Your task to perform on an android device: Go to ESPN.com Image 0: 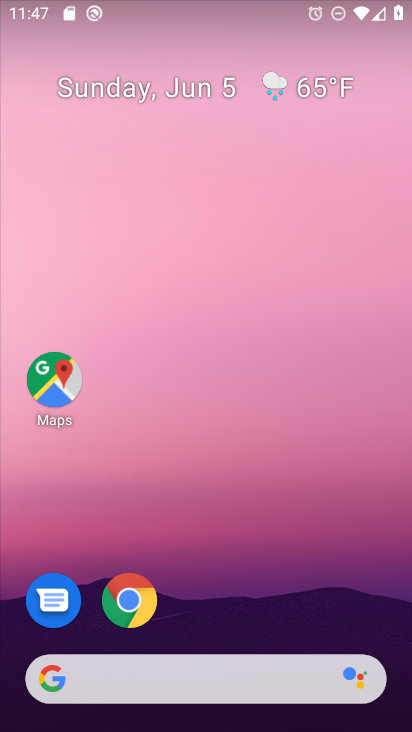
Step 0: drag from (347, 607) to (225, 16)
Your task to perform on an android device: Go to ESPN.com Image 1: 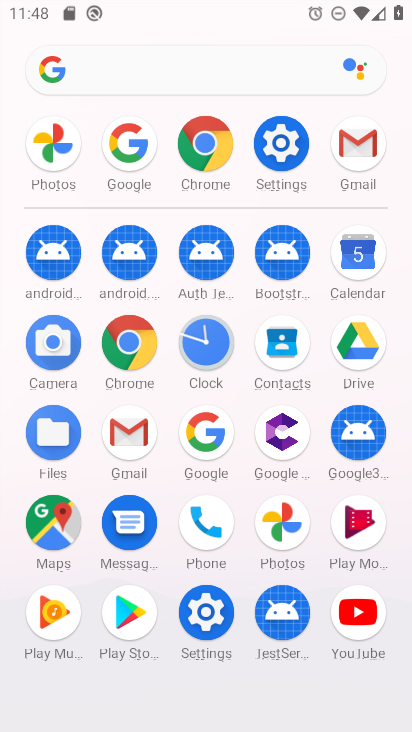
Step 1: click (202, 419)
Your task to perform on an android device: Go to ESPN.com Image 2: 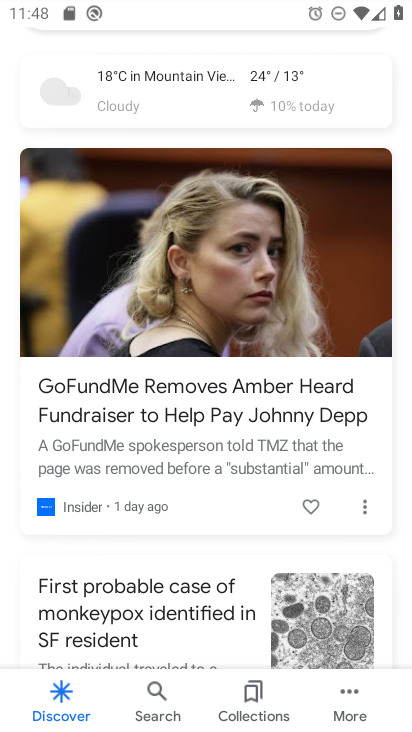
Step 2: drag from (158, 93) to (153, 630)
Your task to perform on an android device: Go to ESPN.com Image 3: 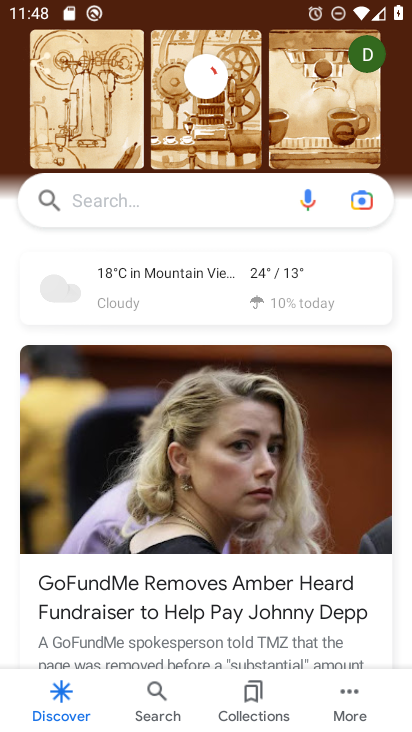
Step 3: click (161, 183)
Your task to perform on an android device: Go to ESPN.com Image 4: 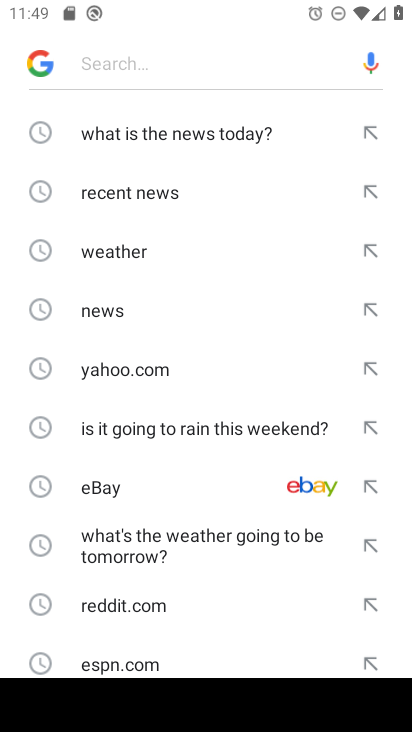
Step 4: click (152, 657)
Your task to perform on an android device: Go to ESPN.com Image 5: 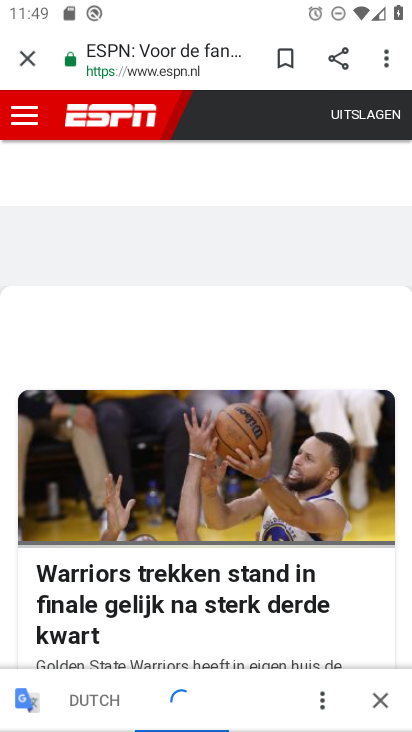
Step 5: task complete